Your task to perform on an android device: delete the emails in spam in the gmail app Image 0: 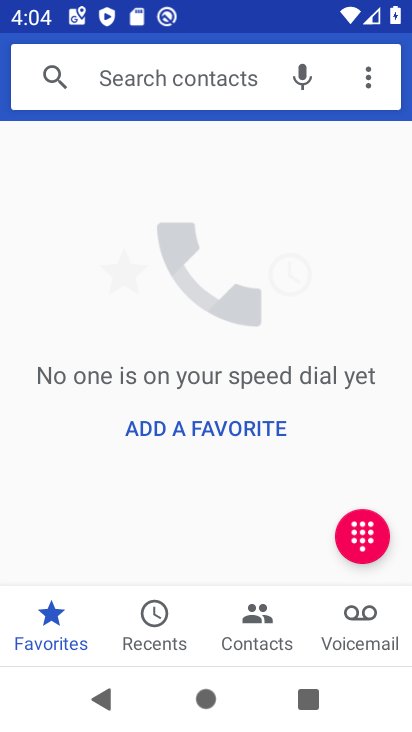
Step 0: press back button
Your task to perform on an android device: delete the emails in spam in the gmail app Image 1: 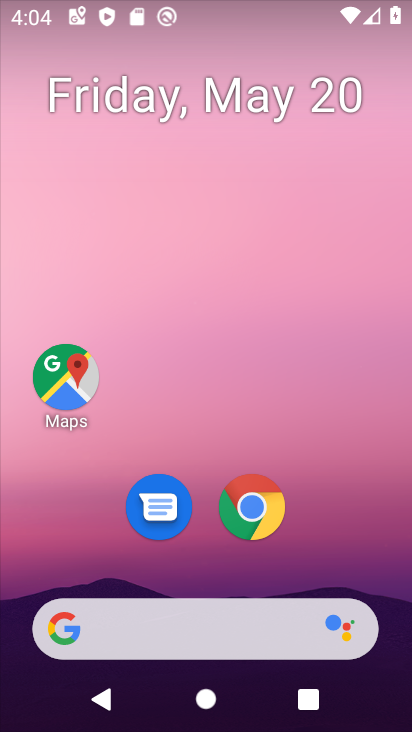
Step 1: drag from (351, 556) to (249, 122)
Your task to perform on an android device: delete the emails in spam in the gmail app Image 2: 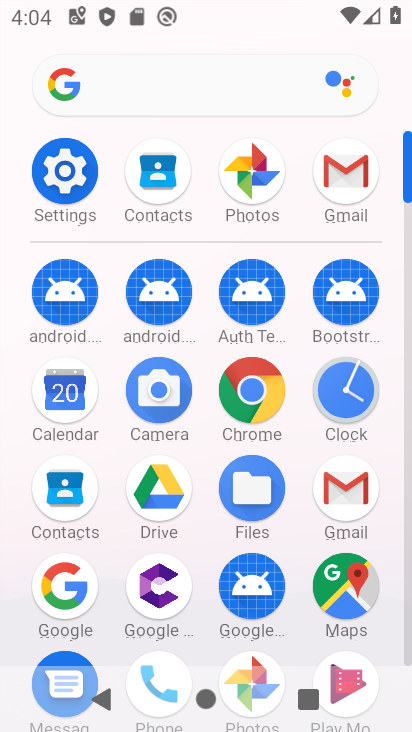
Step 2: click (346, 170)
Your task to perform on an android device: delete the emails in spam in the gmail app Image 3: 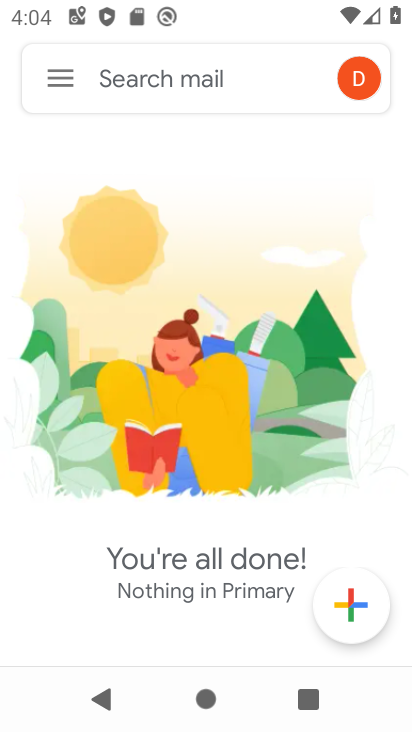
Step 3: click (65, 75)
Your task to perform on an android device: delete the emails in spam in the gmail app Image 4: 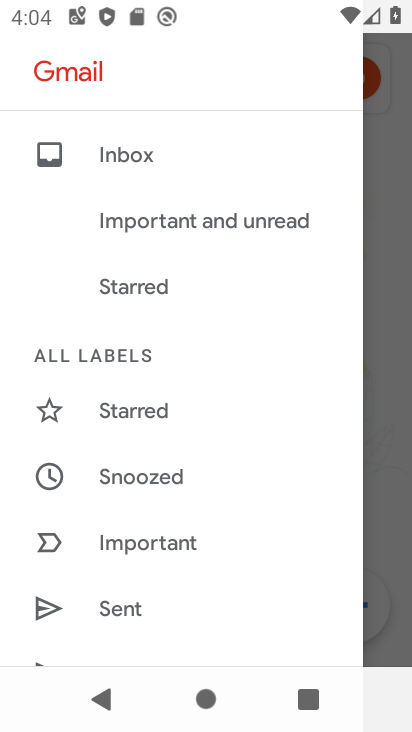
Step 4: drag from (124, 504) to (189, 407)
Your task to perform on an android device: delete the emails in spam in the gmail app Image 5: 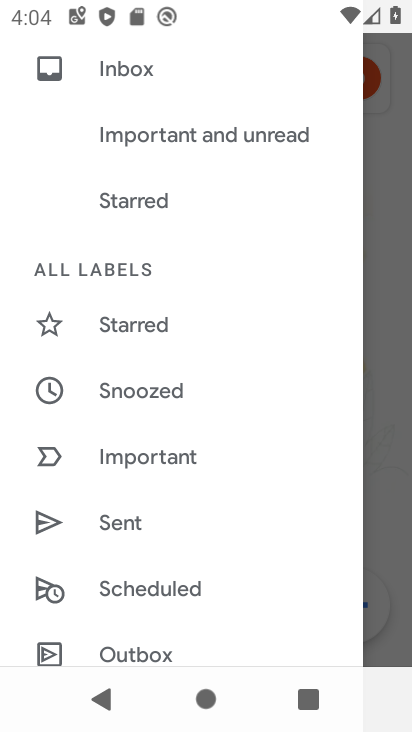
Step 5: drag from (146, 536) to (193, 467)
Your task to perform on an android device: delete the emails in spam in the gmail app Image 6: 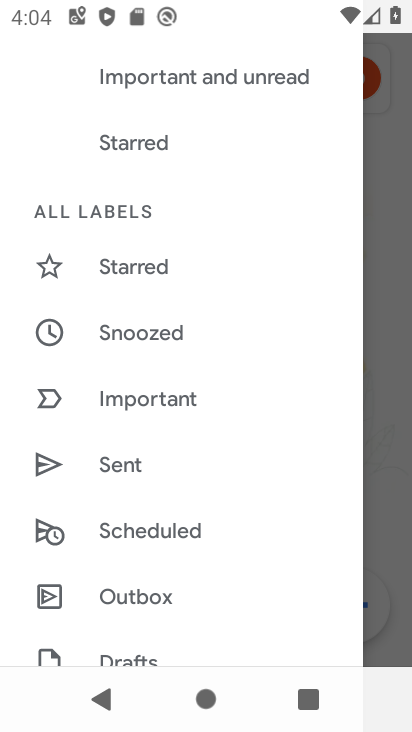
Step 6: drag from (152, 506) to (177, 419)
Your task to perform on an android device: delete the emails in spam in the gmail app Image 7: 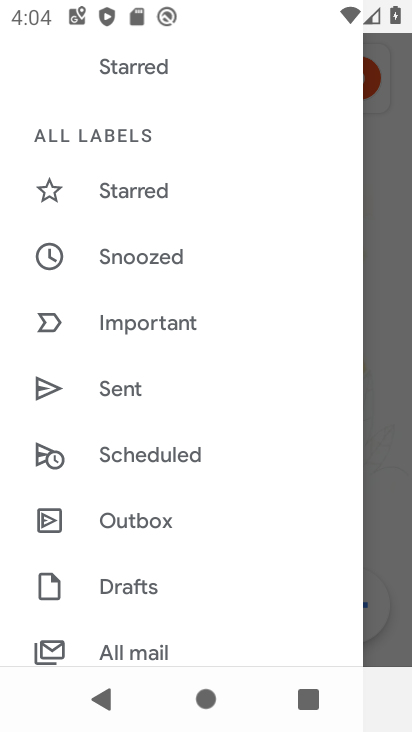
Step 7: drag from (110, 547) to (151, 446)
Your task to perform on an android device: delete the emails in spam in the gmail app Image 8: 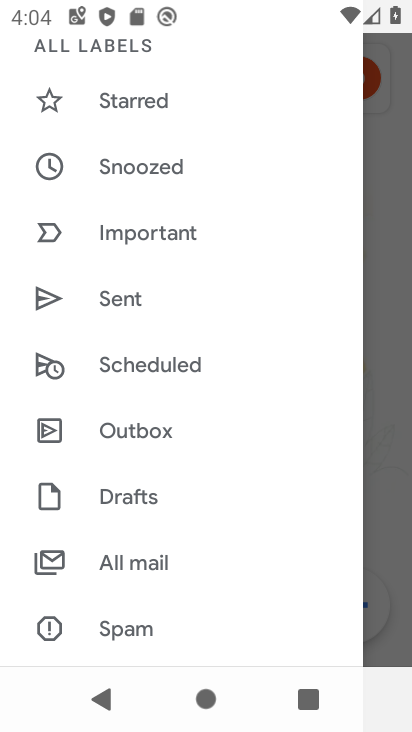
Step 8: drag from (109, 531) to (176, 368)
Your task to perform on an android device: delete the emails in spam in the gmail app Image 9: 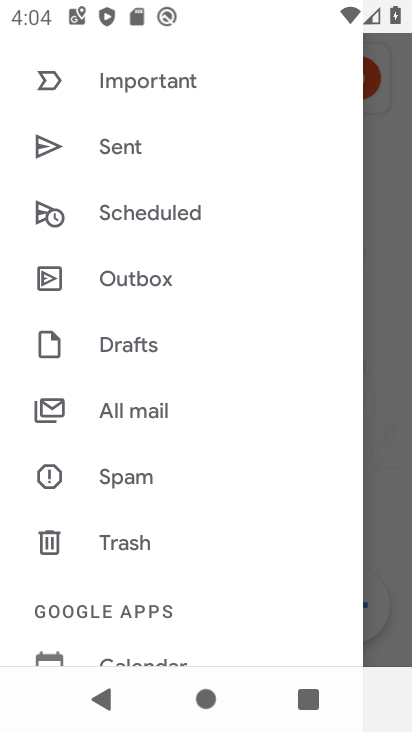
Step 9: click (125, 484)
Your task to perform on an android device: delete the emails in spam in the gmail app Image 10: 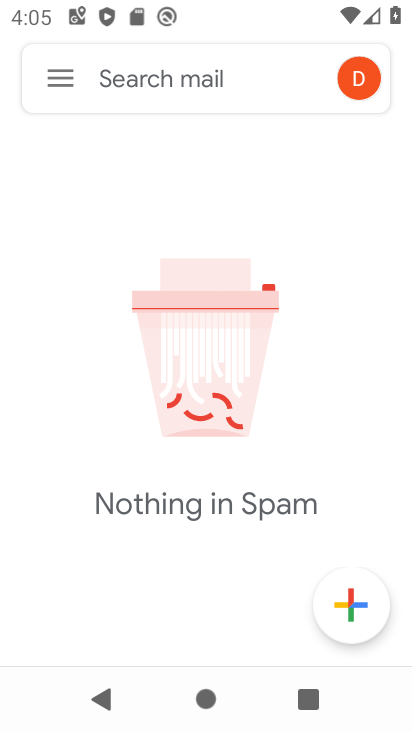
Step 10: task complete